Your task to perform on an android device: Set the phone to "Do not disturb". Image 0: 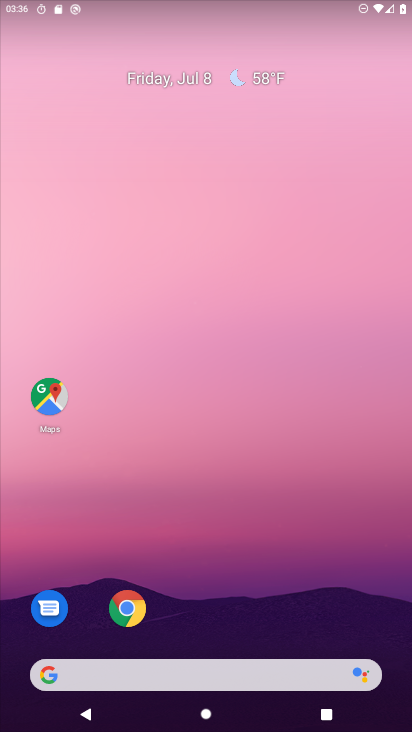
Step 0: drag from (240, 722) to (212, 89)
Your task to perform on an android device: Set the phone to "Do not disturb". Image 1: 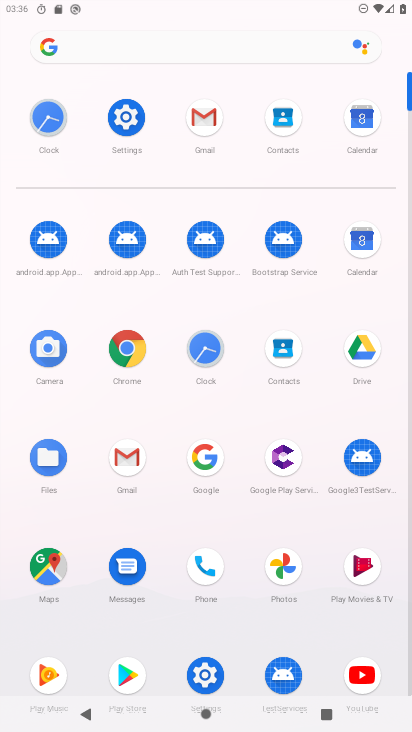
Step 1: click (127, 120)
Your task to perform on an android device: Set the phone to "Do not disturb". Image 2: 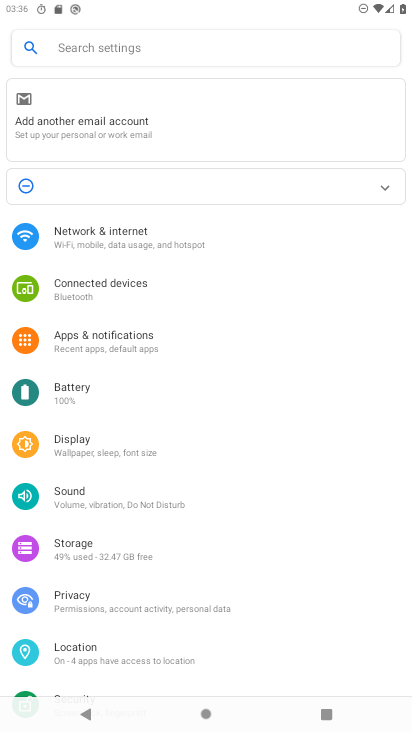
Step 2: click (95, 502)
Your task to perform on an android device: Set the phone to "Do not disturb". Image 3: 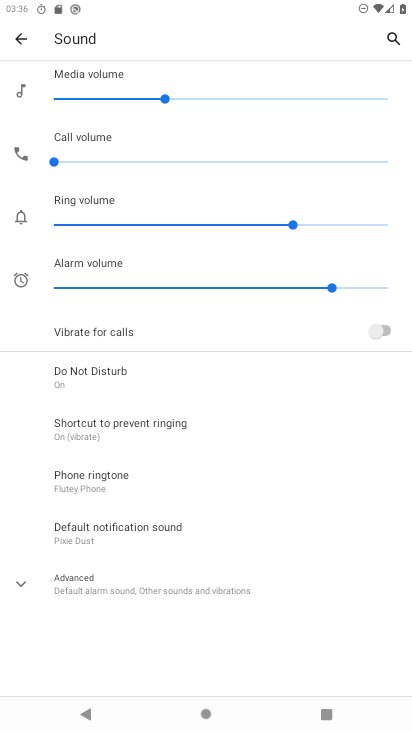
Step 3: click (71, 370)
Your task to perform on an android device: Set the phone to "Do not disturb". Image 4: 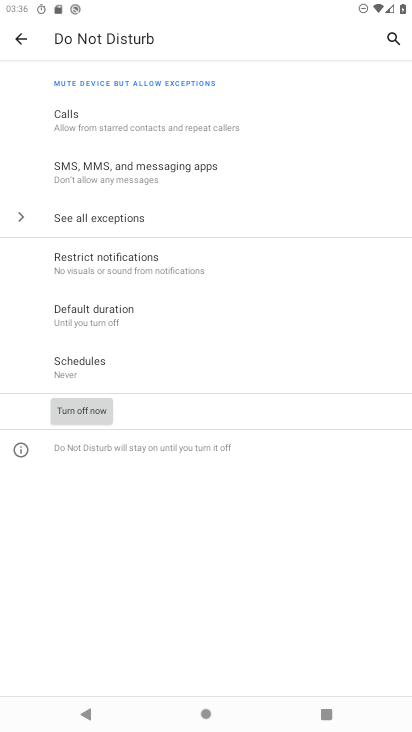
Step 4: task complete